Your task to perform on an android device: open app "Facebook Lite" (install if not already installed) and enter user name: "suppers@inbox.com" and password: "downplayed" Image 0: 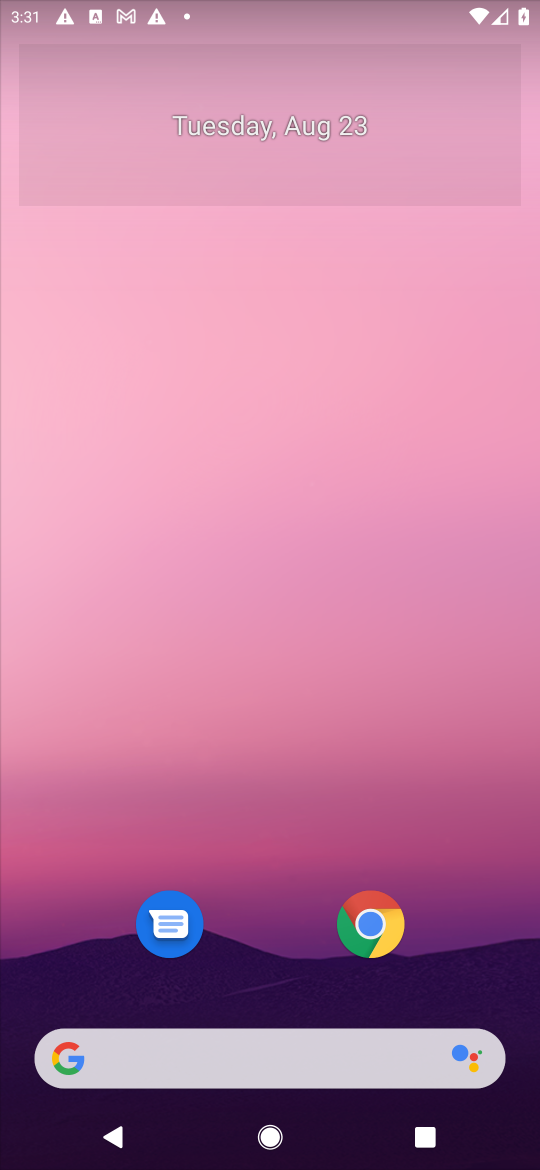
Step 0: press home button
Your task to perform on an android device: open app "Facebook Lite" (install if not already installed) and enter user name: "suppers@inbox.com" and password: "downplayed" Image 1: 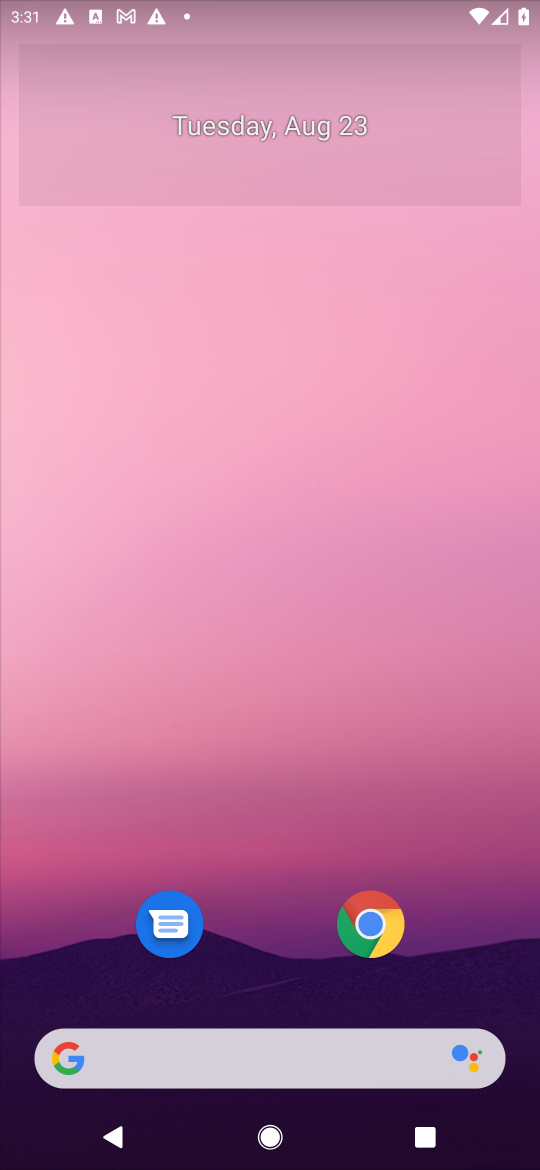
Step 1: drag from (476, 981) to (476, 22)
Your task to perform on an android device: open app "Facebook Lite" (install if not already installed) and enter user name: "suppers@inbox.com" and password: "downplayed" Image 2: 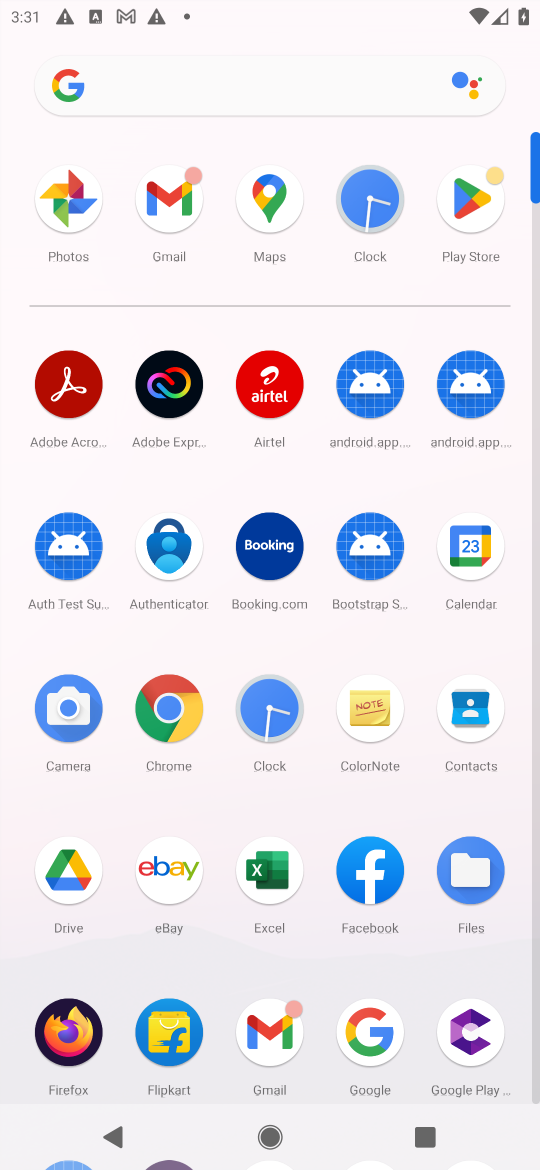
Step 2: click (468, 205)
Your task to perform on an android device: open app "Facebook Lite" (install if not already installed) and enter user name: "suppers@inbox.com" and password: "downplayed" Image 3: 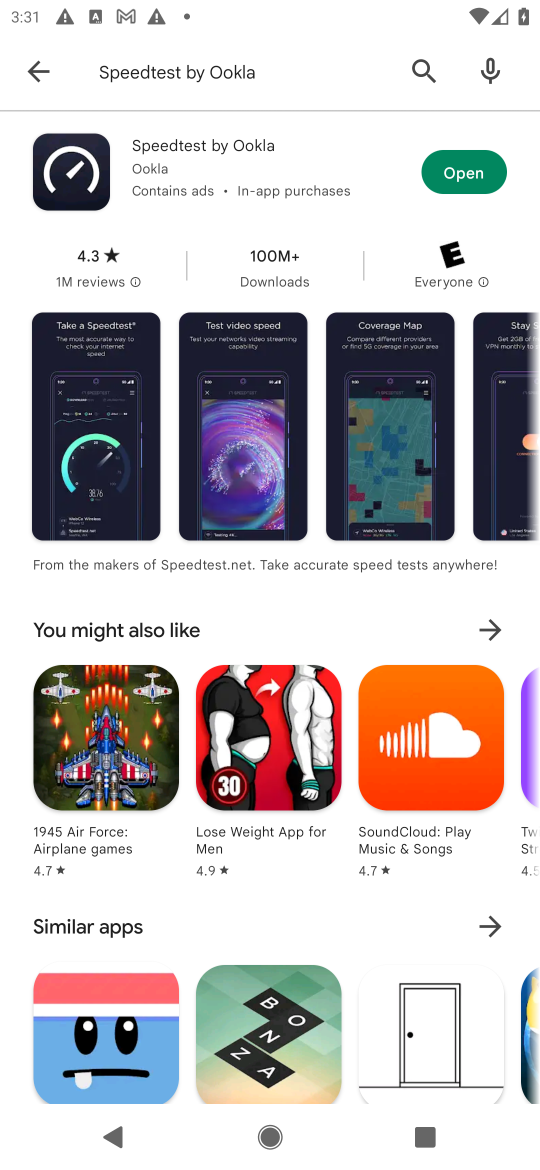
Step 3: press back button
Your task to perform on an android device: open app "Facebook Lite" (install if not already installed) and enter user name: "suppers@inbox.com" and password: "downplayed" Image 4: 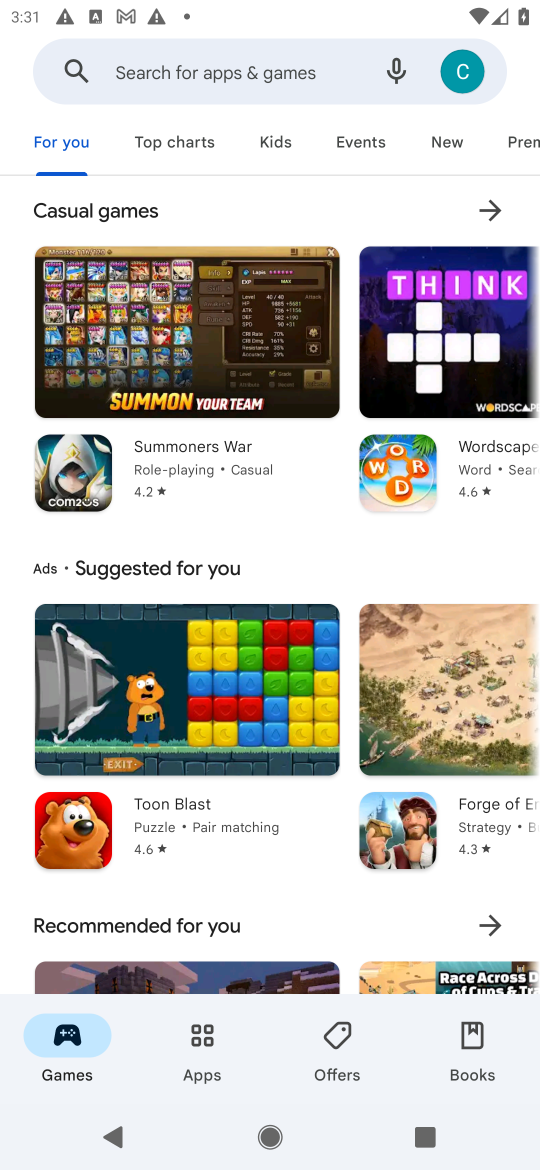
Step 4: click (279, 70)
Your task to perform on an android device: open app "Facebook Lite" (install if not already installed) and enter user name: "suppers@inbox.com" and password: "downplayed" Image 5: 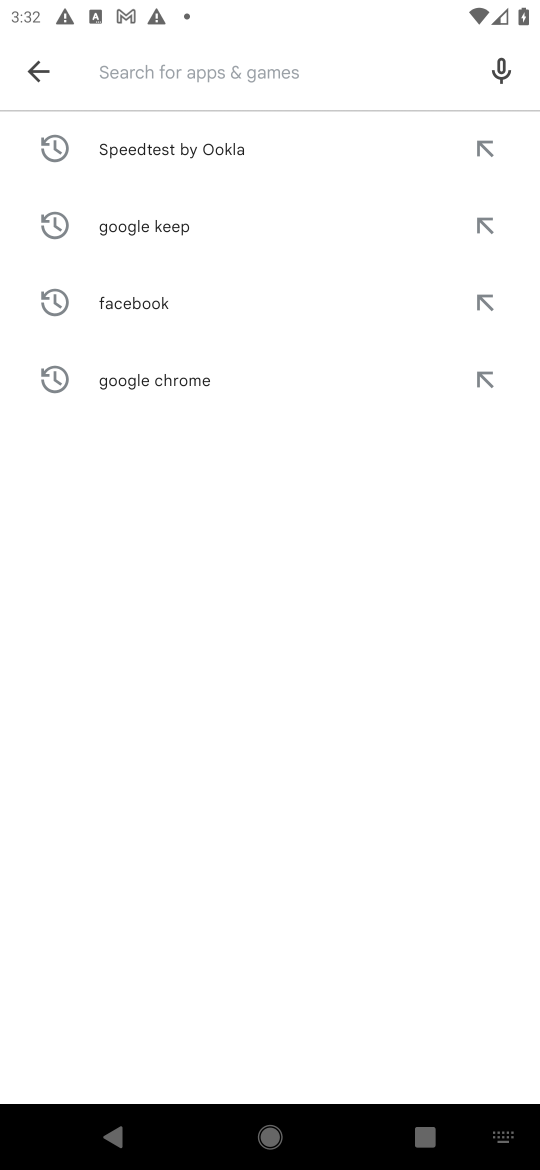
Step 5: press enter
Your task to perform on an android device: open app "Facebook Lite" (install if not already installed) and enter user name: "suppers@inbox.com" and password: "downplayed" Image 6: 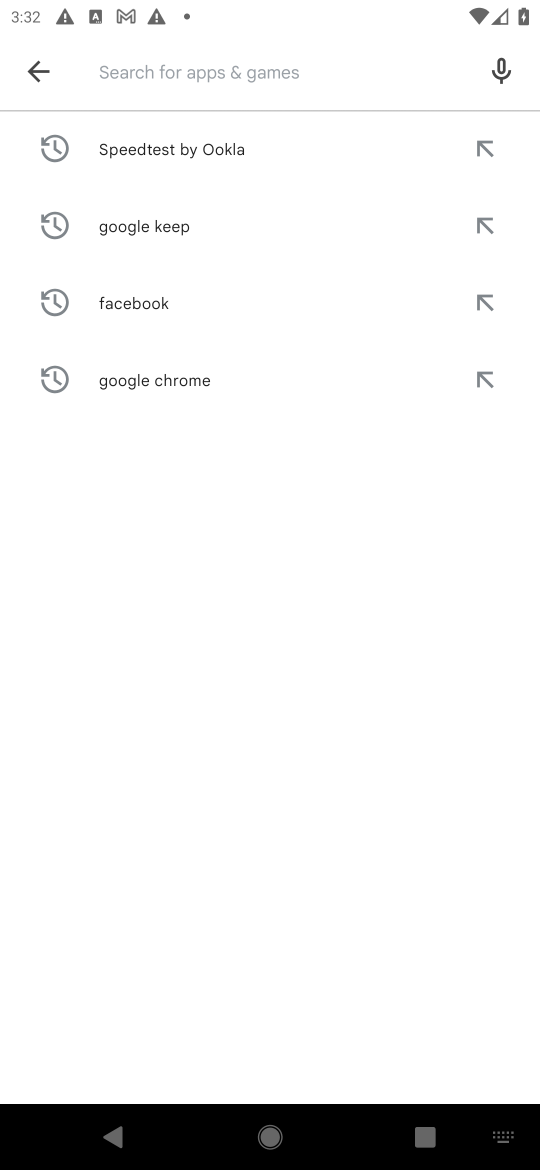
Step 6: type "facebook lite"
Your task to perform on an android device: open app "Facebook Lite" (install if not already installed) and enter user name: "suppers@inbox.com" and password: "downplayed" Image 7: 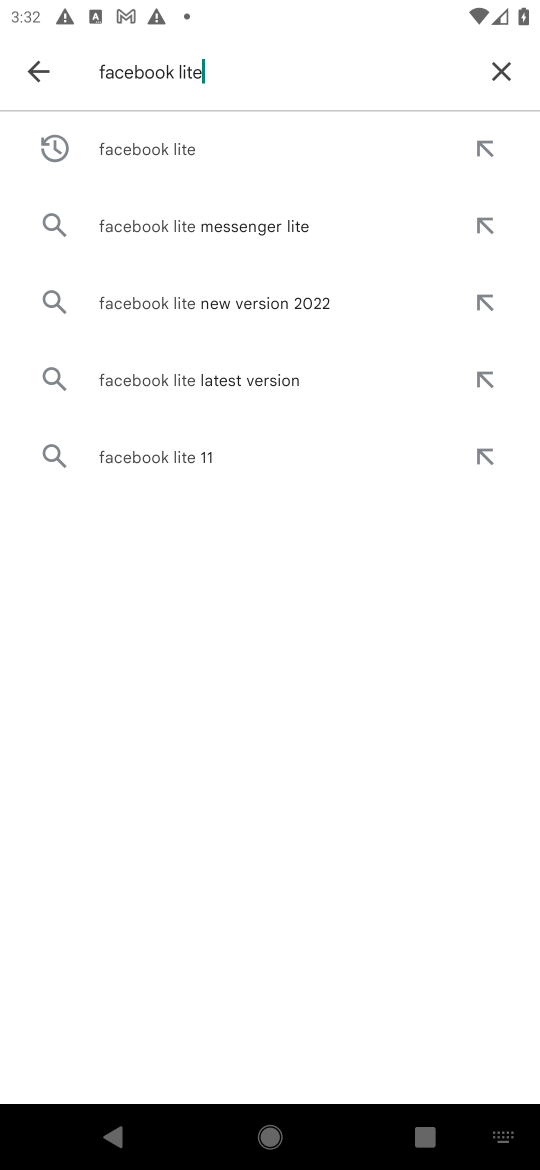
Step 7: click (165, 158)
Your task to perform on an android device: open app "Facebook Lite" (install if not already installed) and enter user name: "suppers@inbox.com" and password: "downplayed" Image 8: 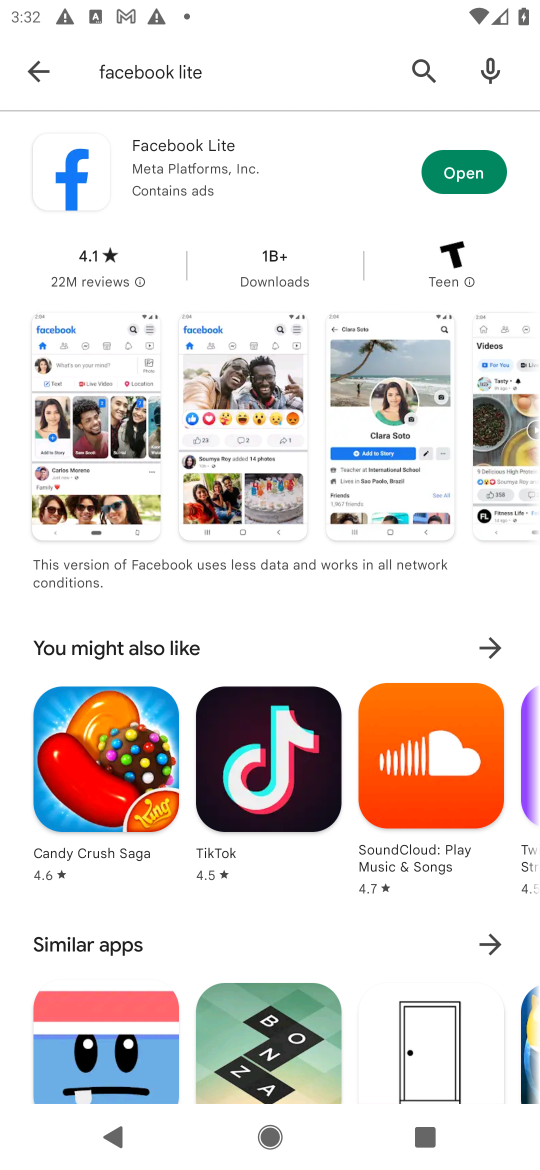
Step 8: click (454, 174)
Your task to perform on an android device: open app "Facebook Lite" (install if not already installed) and enter user name: "suppers@inbox.com" and password: "downplayed" Image 9: 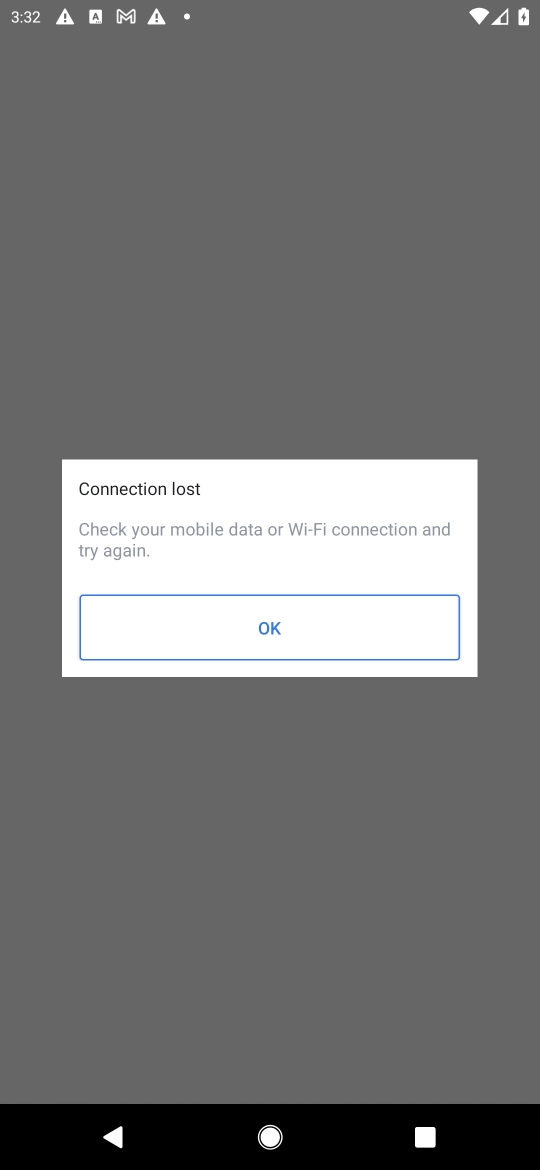
Step 9: task complete